Your task to perform on an android device: Turn off the flashlight Image 0: 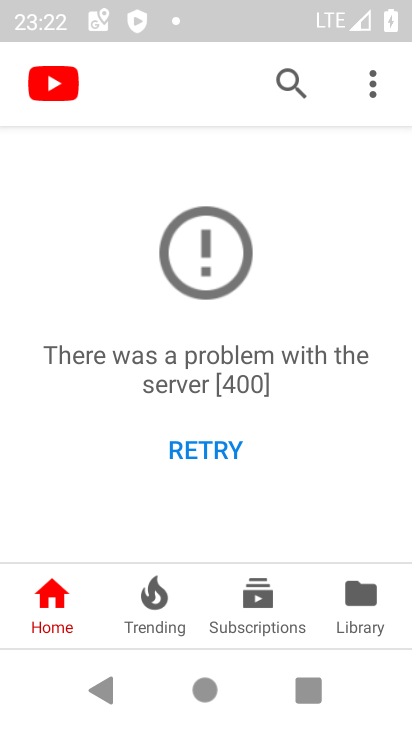
Step 0: press home button
Your task to perform on an android device: Turn off the flashlight Image 1: 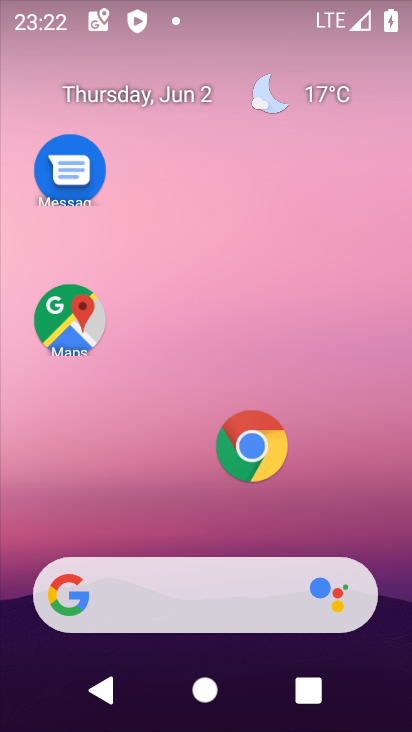
Step 1: click (294, 2)
Your task to perform on an android device: Turn off the flashlight Image 2: 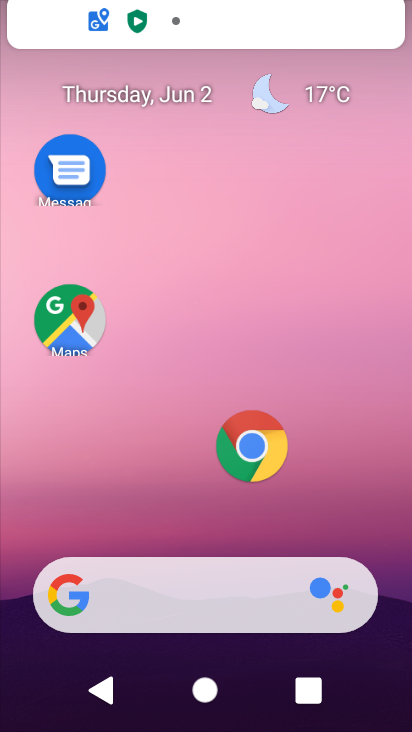
Step 2: task complete